Your task to perform on an android device: When is my next appointment? Image 0: 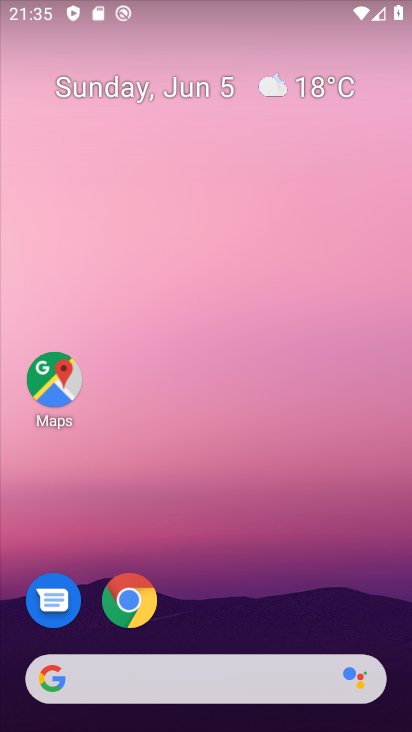
Step 0: drag from (241, 591) to (258, 162)
Your task to perform on an android device: When is my next appointment? Image 1: 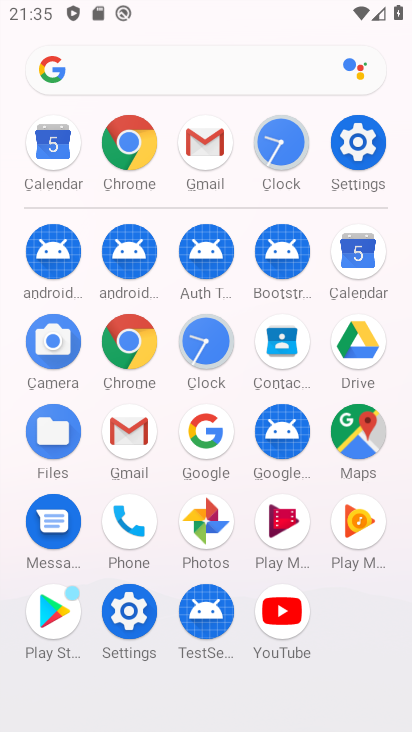
Step 1: click (354, 250)
Your task to perform on an android device: When is my next appointment? Image 2: 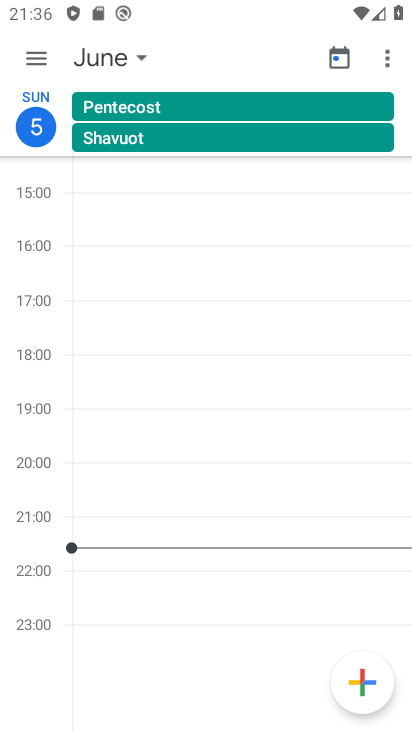
Step 2: click (51, 62)
Your task to perform on an android device: When is my next appointment? Image 3: 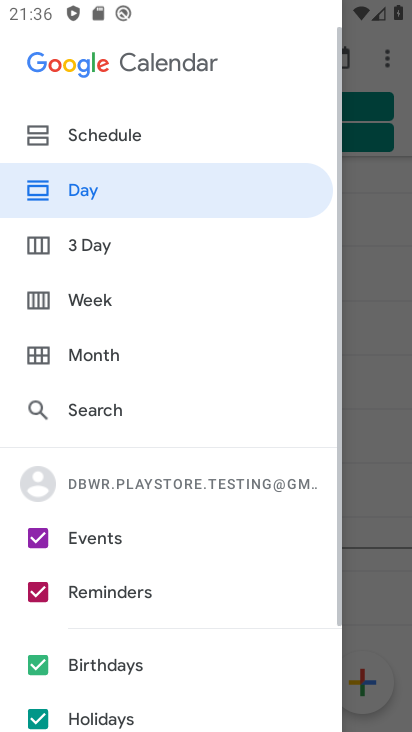
Step 3: click (76, 249)
Your task to perform on an android device: When is my next appointment? Image 4: 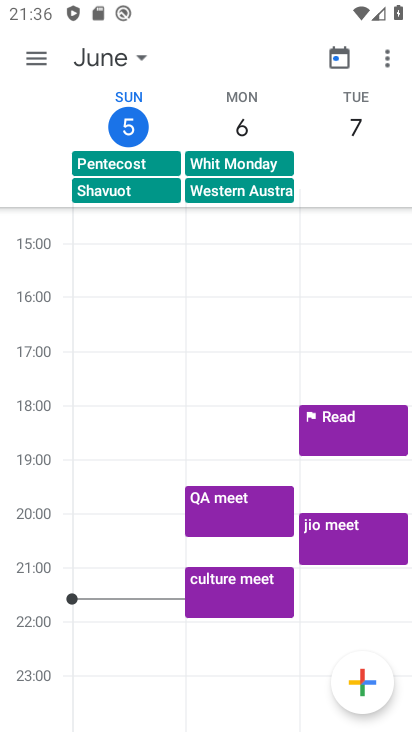
Step 4: task complete